Your task to perform on an android device: turn on wifi Image 0: 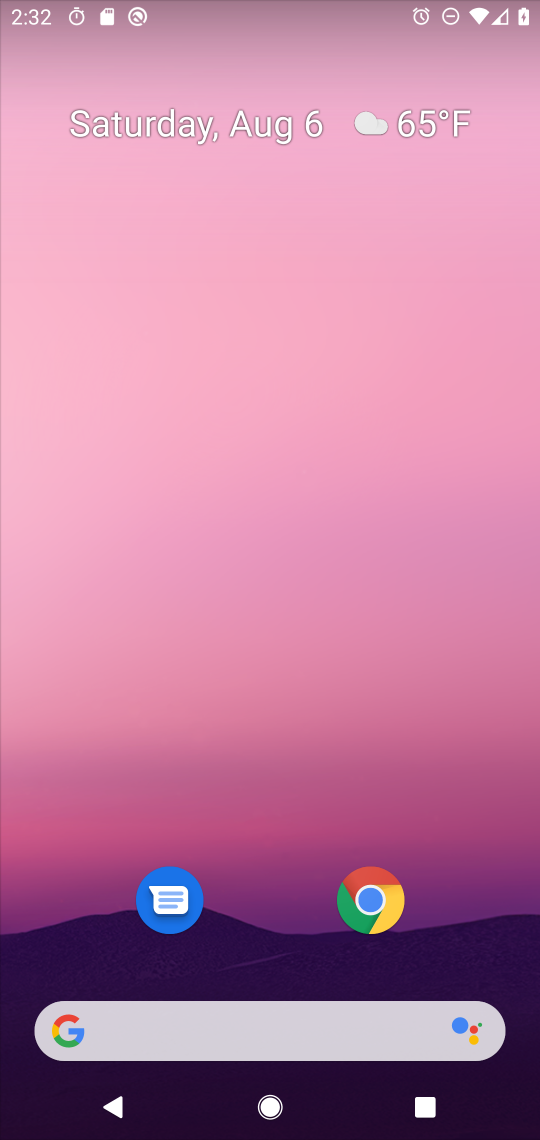
Step 0: drag from (263, 880) to (259, 265)
Your task to perform on an android device: turn on wifi Image 1: 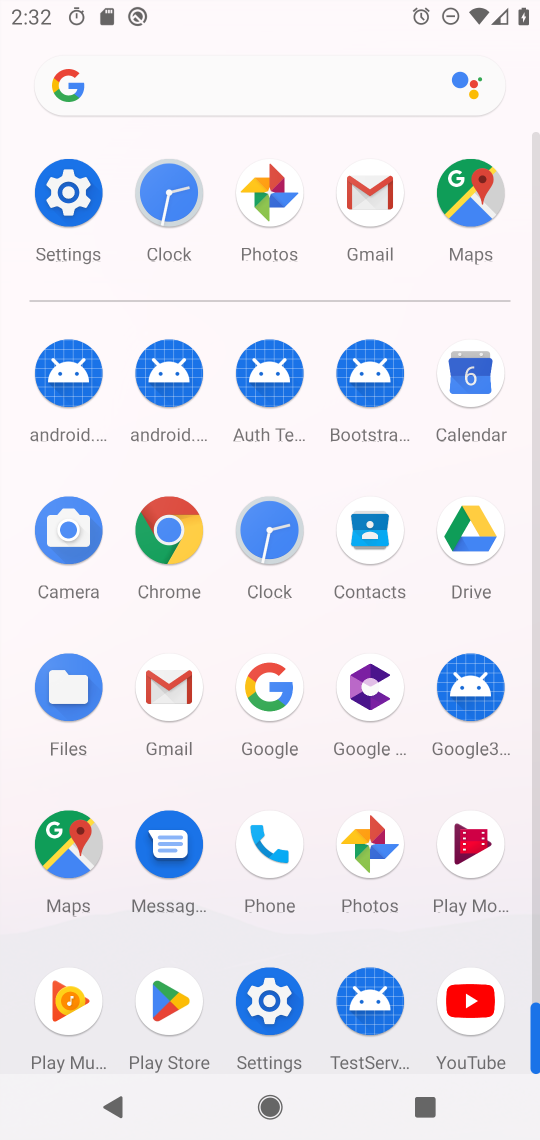
Step 1: click (59, 177)
Your task to perform on an android device: turn on wifi Image 2: 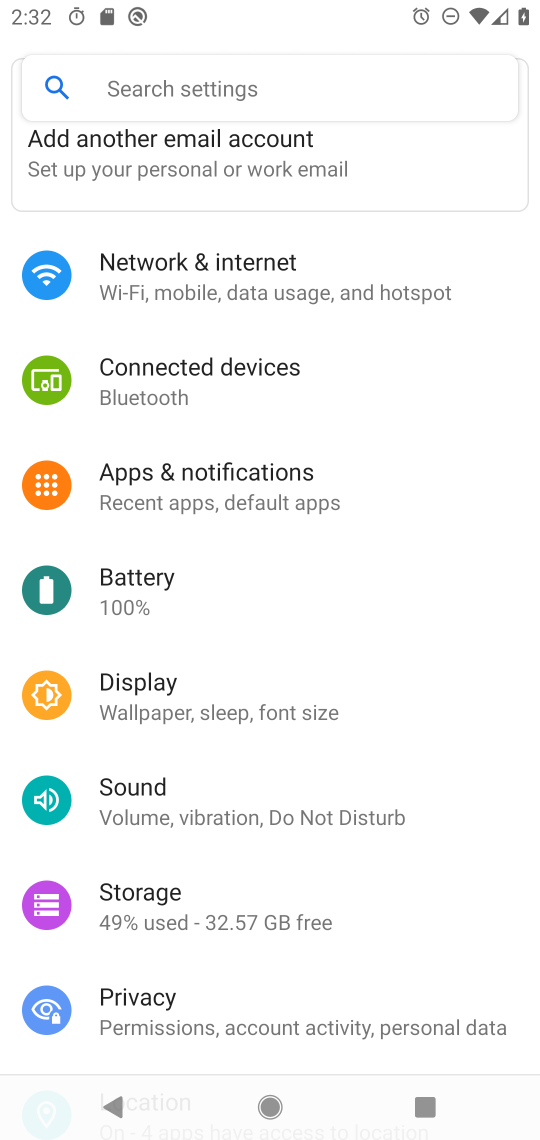
Step 2: click (160, 275)
Your task to perform on an android device: turn on wifi Image 3: 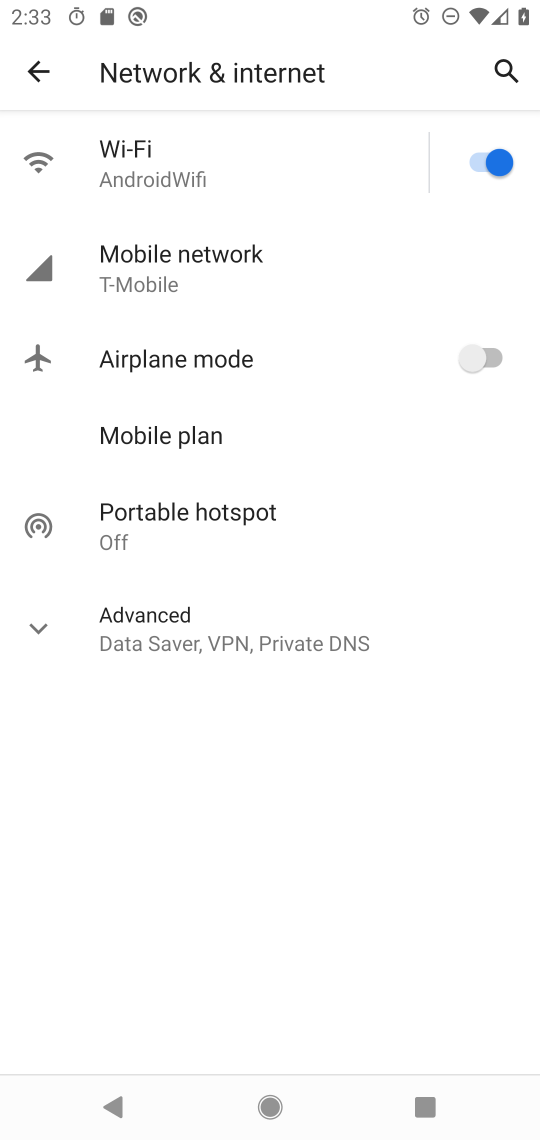
Step 3: task complete